Your task to perform on an android device: open a bookmark in the chrome app Image 0: 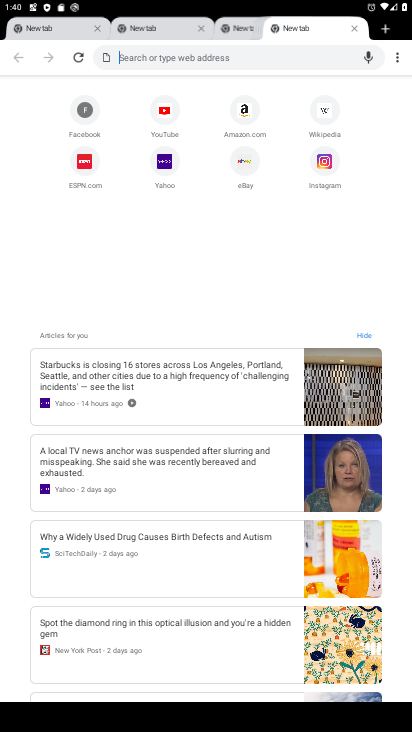
Step 0: click (391, 51)
Your task to perform on an android device: open a bookmark in the chrome app Image 1: 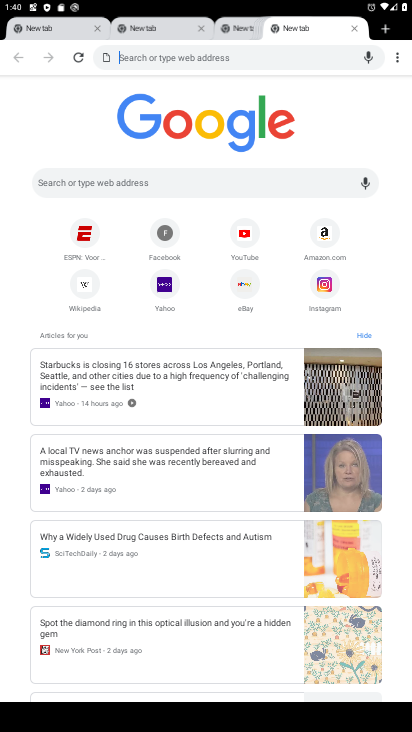
Step 1: click (400, 53)
Your task to perform on an android device: open a bookmark in the chrome app Image 2: 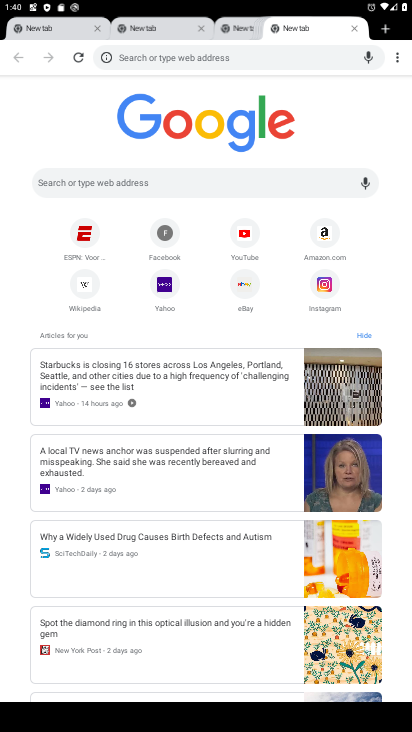
Step 2: task complete